Your task to perform on an android device: find photos in the google photos app Image 0: 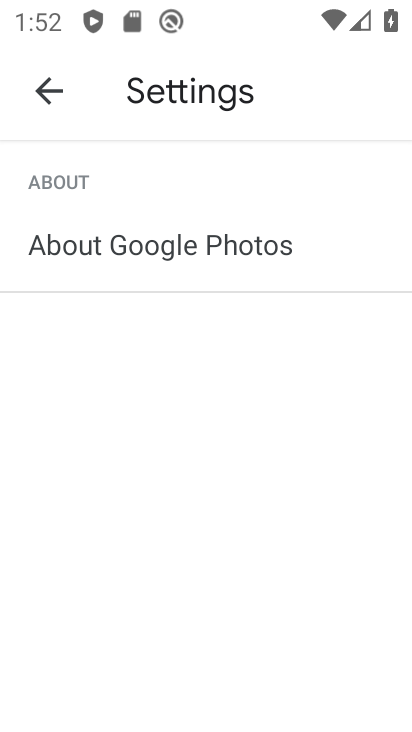
Step 0: press home button
Your task to perform on an android device: find photos in the google photos app Image 1: 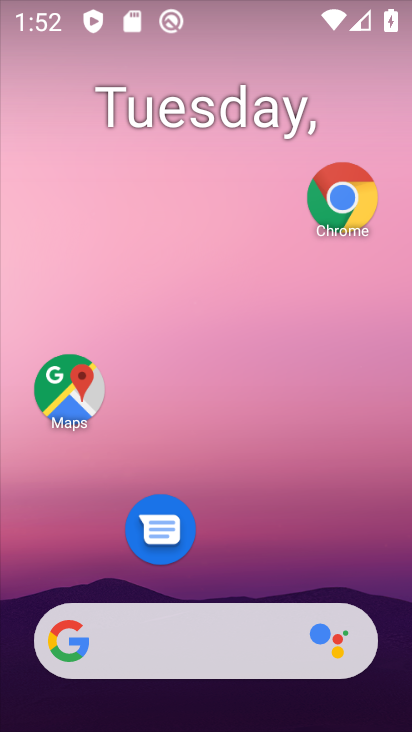
Step 1: drag from (237, 535) to (243, 57)
Your task to perform on an android device: find photos in the google photos app Image 2: 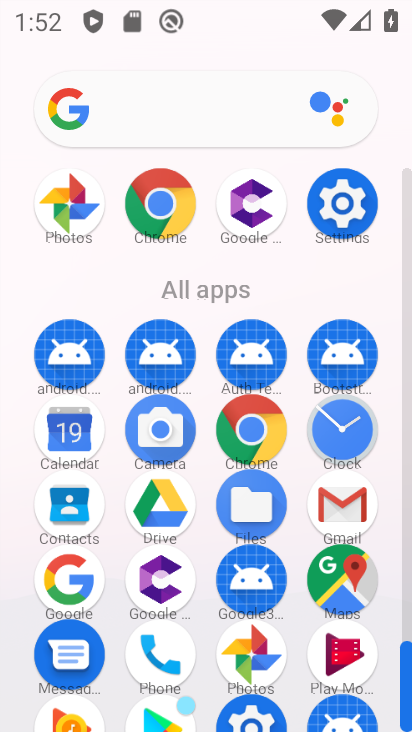
Step 2: click (257, 648)
Your task to perform on an android device: find photos in the google photos app Image 3: 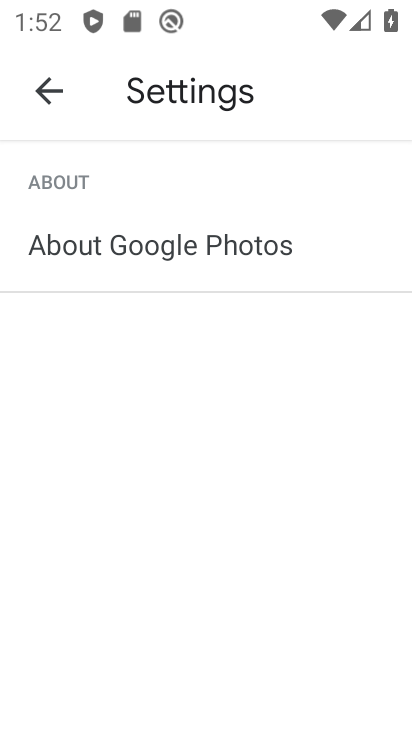
Step 3: click (45, 88)
Your task to perform on an android device: find photos in the google photos app Image 4: 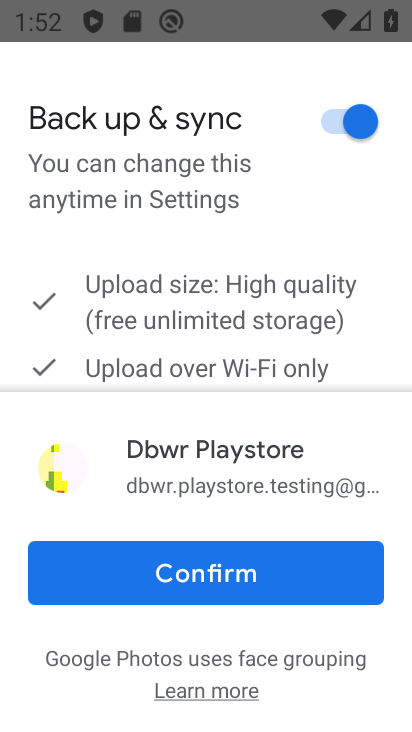
Step 4: click (187, 568)
Your task to perform on an android device: find photos in the google photos app Image 5: 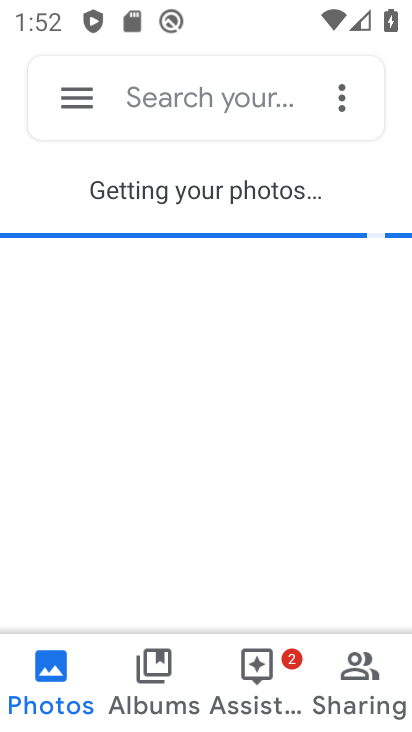
Step 5: click (34, 682)
Your task to perform on an android device: find photos in the google photos app Image 6: 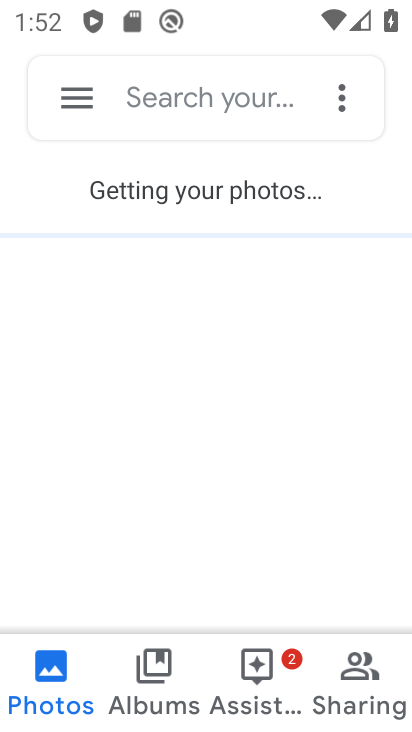
Step 6: task complete